Your task to perform on an android device: Is it going to rain this weekend? Image 0: 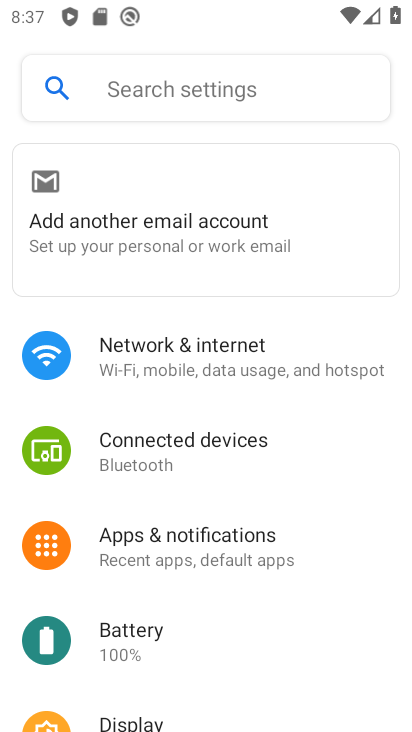
Step 0: press home button
Your task to perform on an android device: Is it going to rain this weekend? Image 1: 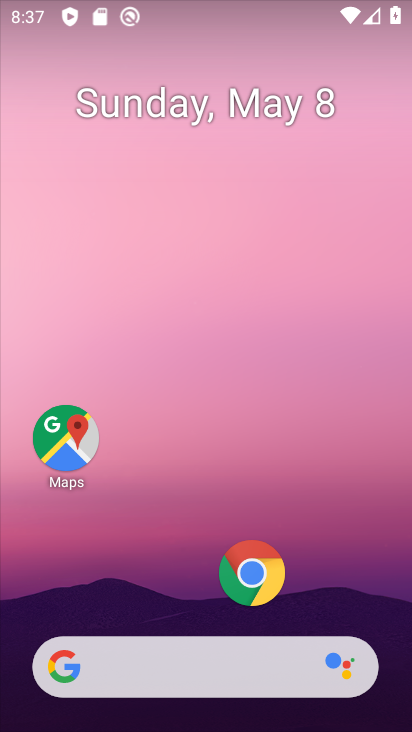
Step 1: click (252, 575)
Your task to perform on an android device: Is it going to rain this weekend? Image 2: 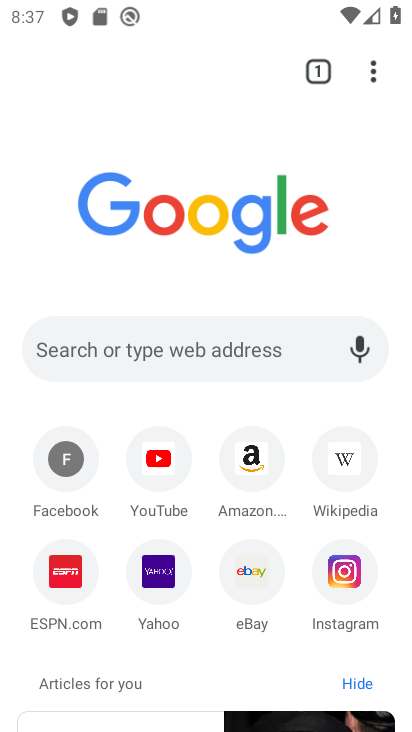
Step 2: click (148, 350)
Your task to perform on an android device: Is it going to rain this weekend? Image 3: 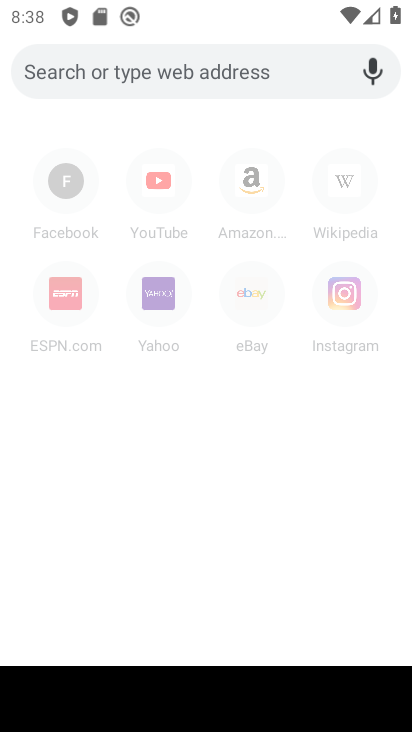
Step 3: type "Is it going to rain this weekend?"
Your task to perform on an android device: Is it going to rain this weekend? Image 4: 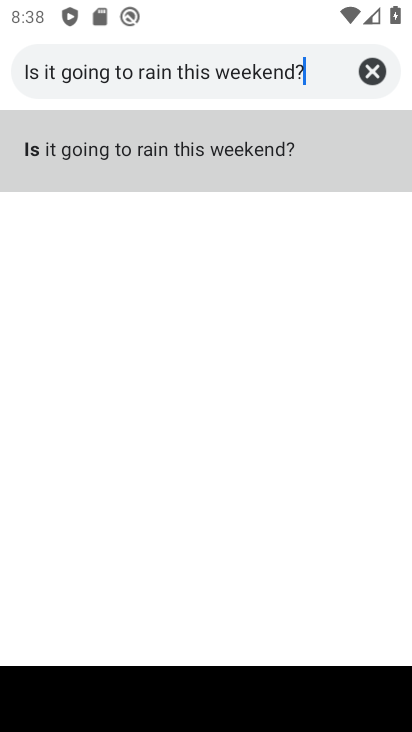
Step 4: click (141, 166)
Your task to perform on an android device: Is it going to rain this weekend? Image 5: 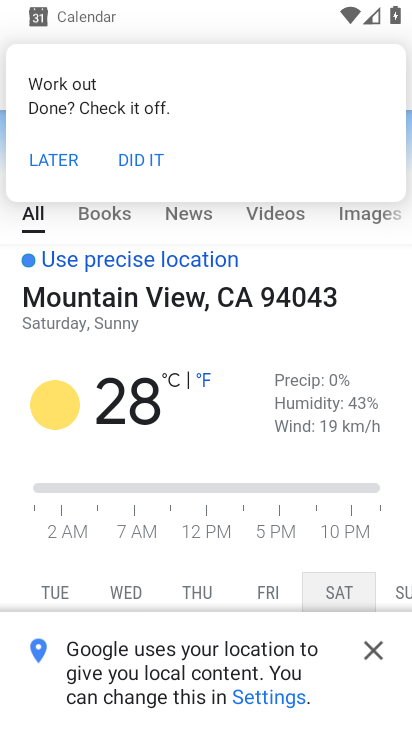
Step 5: task complete